Your task to perform on an android device: Go to sound settings Image 0: 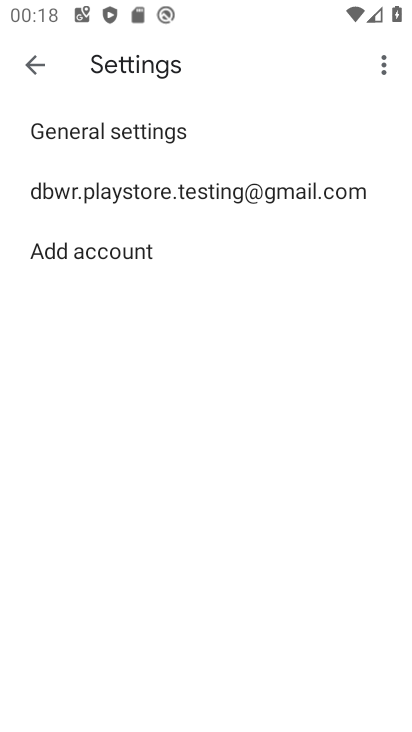
Step 0: press home button
Your task to perform on an android device: Go to sound settings Image 1: 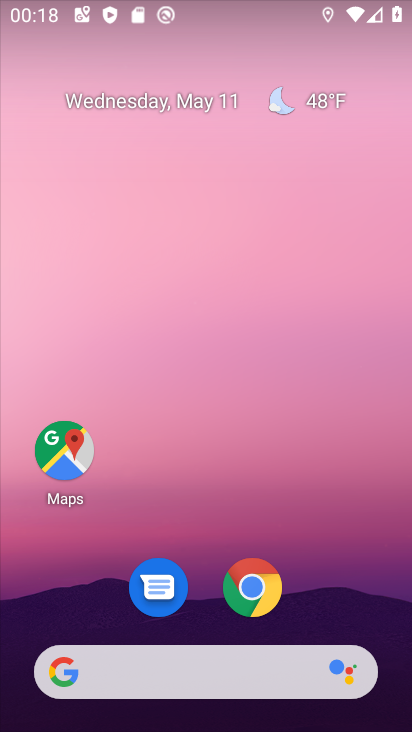
Step 1: drag from (322, 521) to (234, 1)
Your task to perform on an android device: Go to sound settings Image 2: 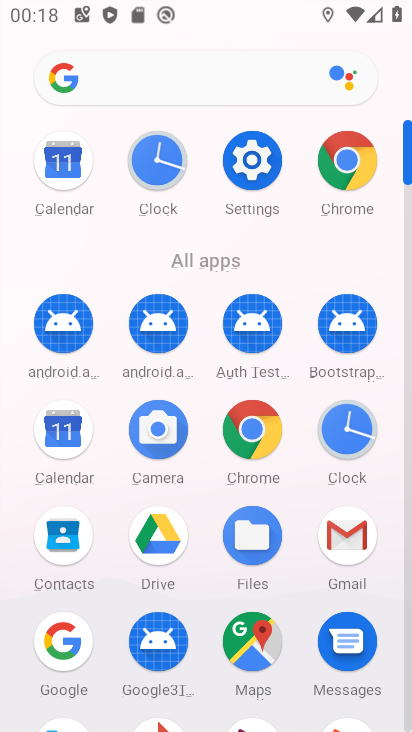
Step 2: click (262, 164)
Your task to perform on an android device: Go to sound settings Image 3: 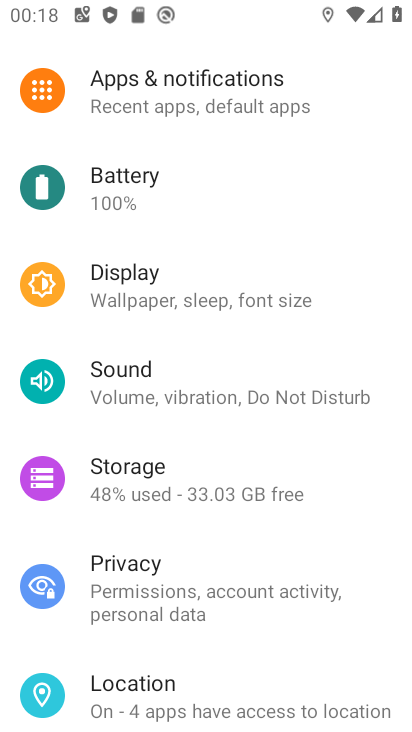
Step 3: click (155, 393)
Your task to perform on an android device: Go to sound settings Image 4: 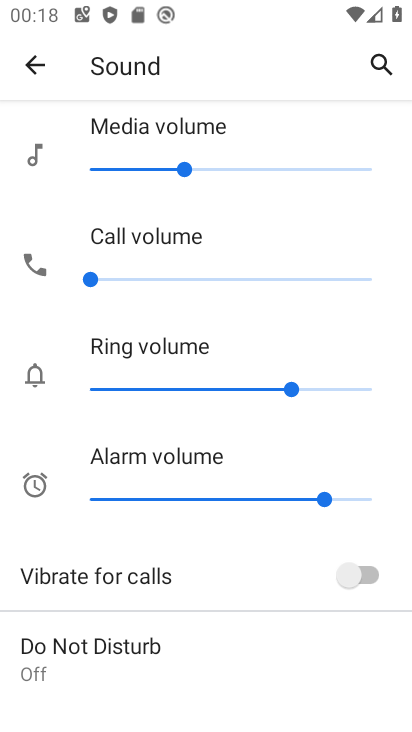
Step 4: task complete